Your task to perform on an android device: Go to CNN.com Image 0: 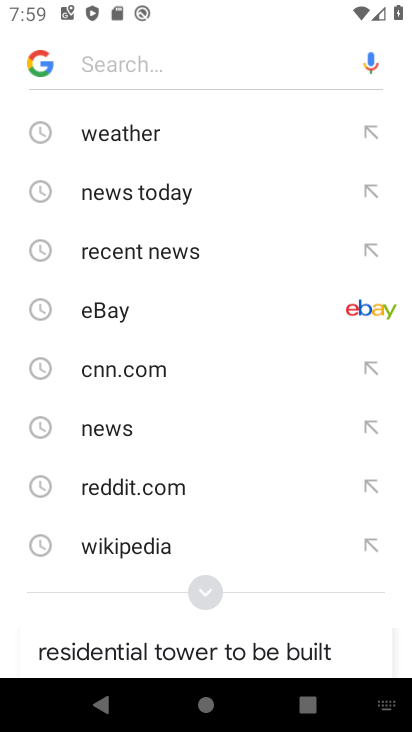
Step 0: press home button
Your task to perform on an android device: Go to CNN.com Image 1: 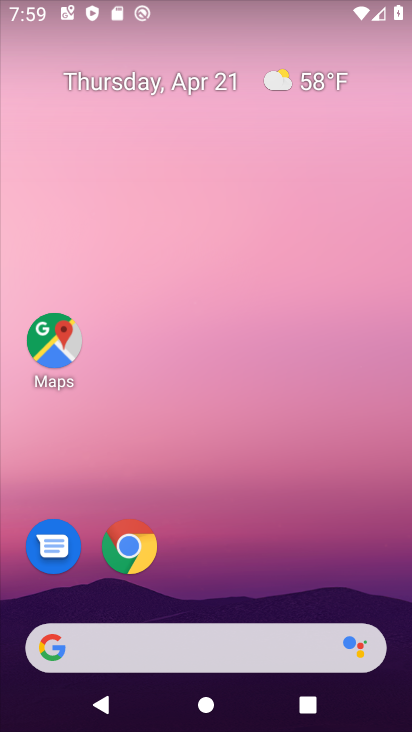
Step 1: drag from (266, 538) to (273, 170)
Your task to perform on an android device: Go to CNN.com Image 2: 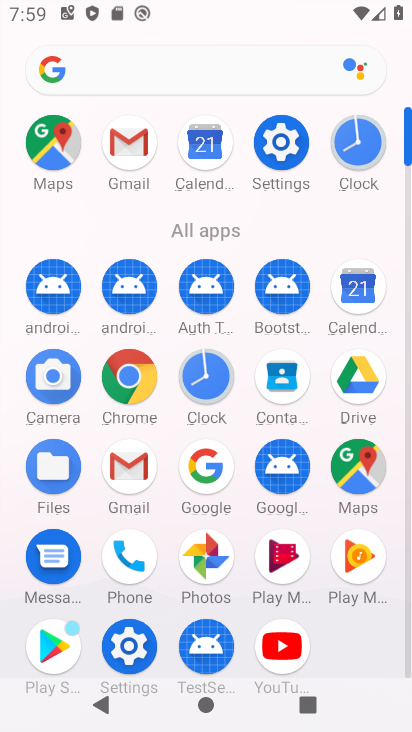
Step 2: click (124, 387)
Your task to perform on an android device: Go to CNN.com Image 3: 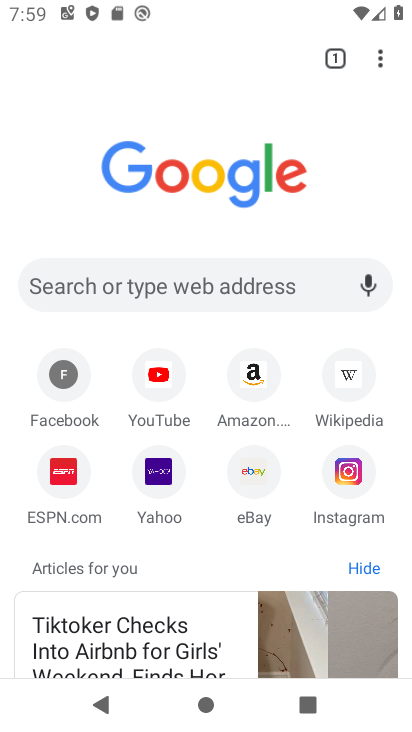
Step 3: click (187, 271)
Your task to perform on an android device: Go to CNN.com Image 4: 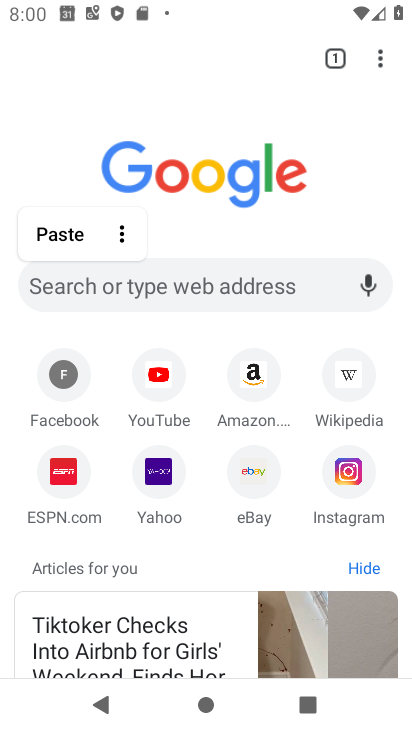
Step 4: type "cnn.com"
Your task to perform on an android device: Go to CNN.com Image 5: 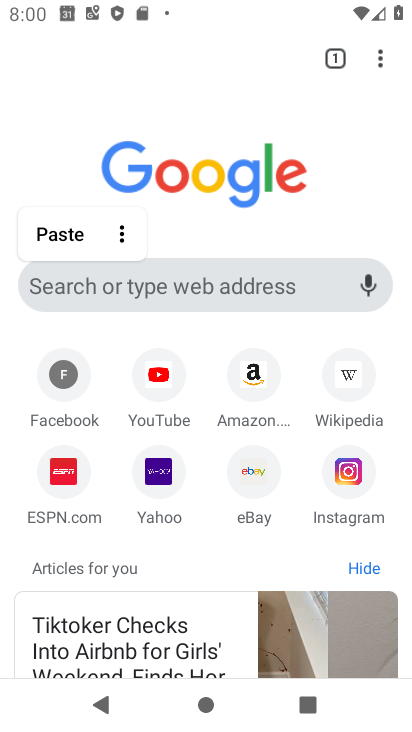
Step 5: click (178, 280)
Your task to perform on an android device: Go to CNN.com Image 6: 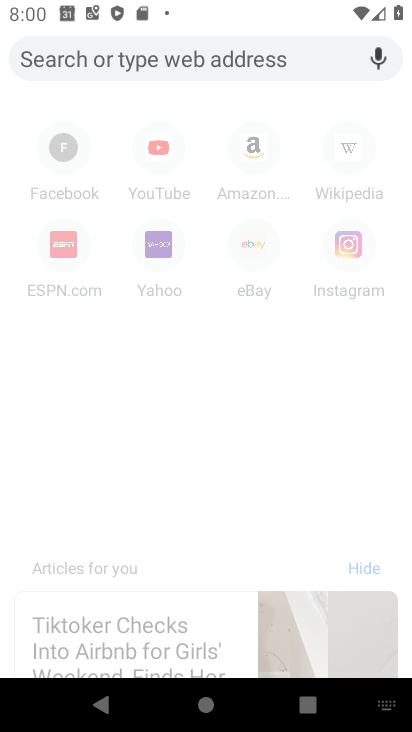
Step 6: type "cnn.com"
Your task to perform on an android device: Go to CNN.com Image 7: 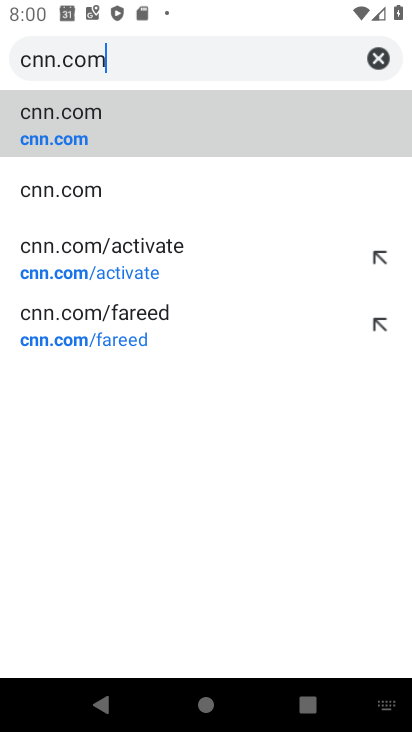
Step 7: click (112, 140)
Your task to perform on an android device: Go to CNN.com Image 8: 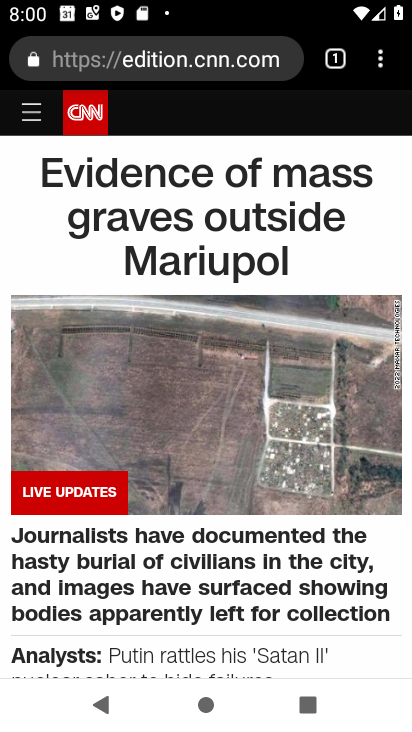
Step 8: task complete